Your task to perform on an android device: Open Youtube and go to the subscriptions tab Image 0: 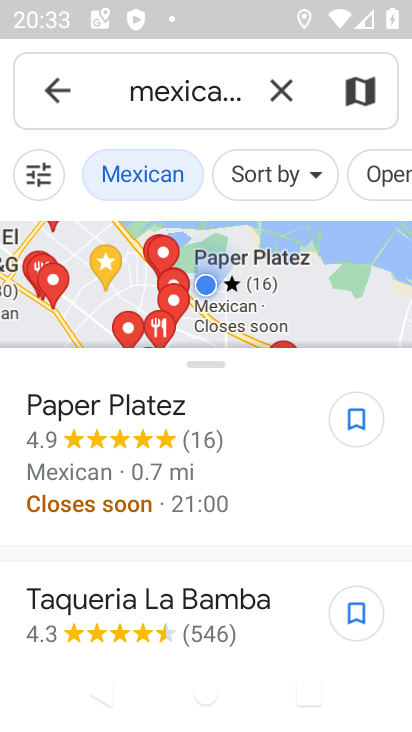
Step 0: press home button
Your task to perform on an android device: Open Youtube and go to the subscriptions tab Image 1: 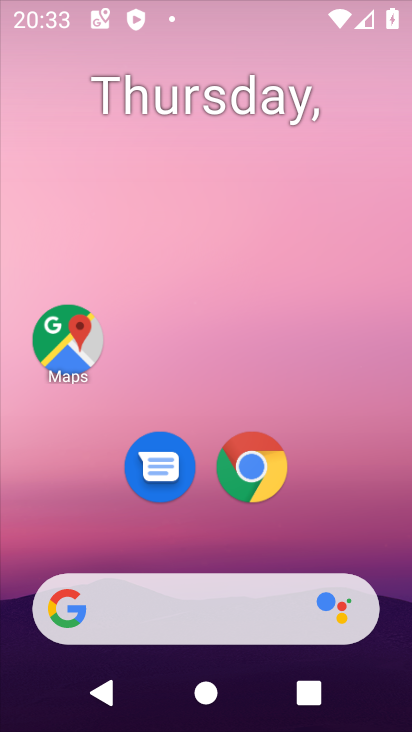
Step 1: drag from (257, 498) to (289, 247)
Your task to perform on an android device: Open Youtube and go to the subscriptions tab Image 2: 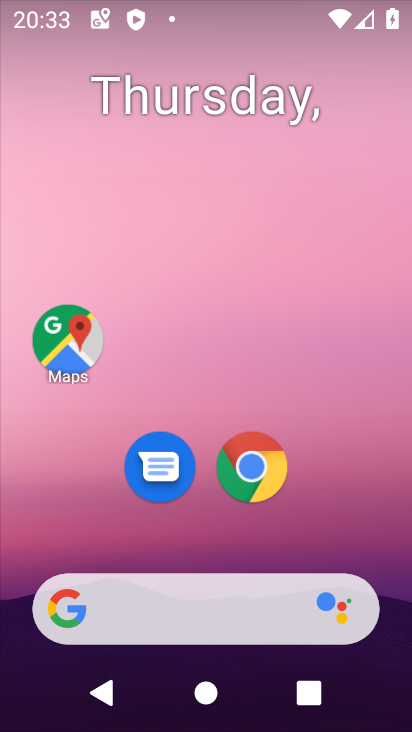
Step 2: drag from (300, 674) to (373, 217)
Your task to perform on an android device: Open Youtube and go to the subscriptions tab Image 3: 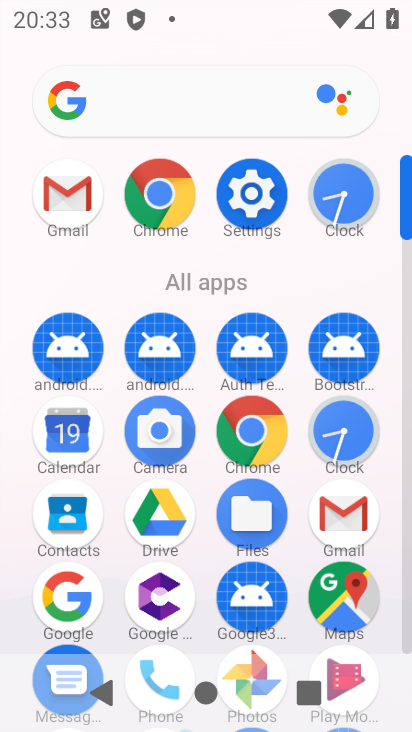
Step 3: drag from (283, 621) to (357, 199)
Your task to perform on an android device: Open Youtube and go to the subscriptions tab Image 4: 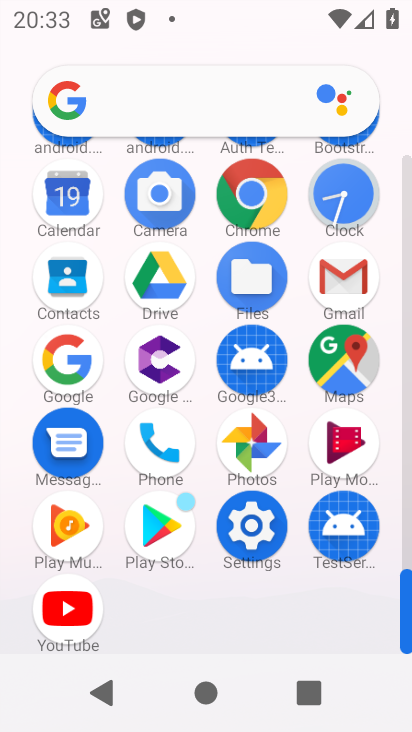
Step 4: click (51, 625)
Your task to perform on an android device: Open Youtube and go to the subscriptions tab Image 5: 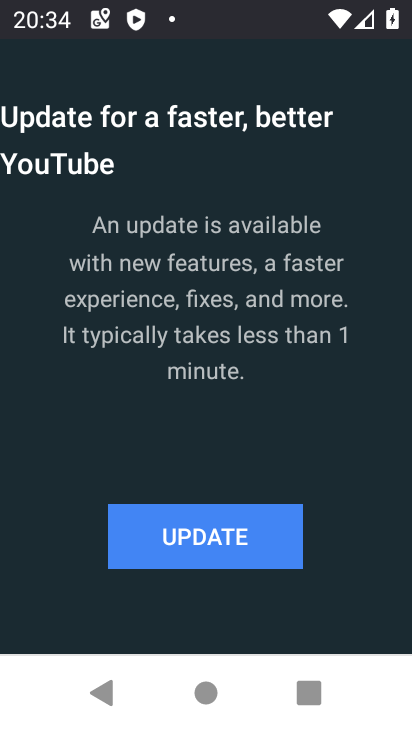
Step 5: task complete